Your task to perform on an android device: Go to eBay Image 0: 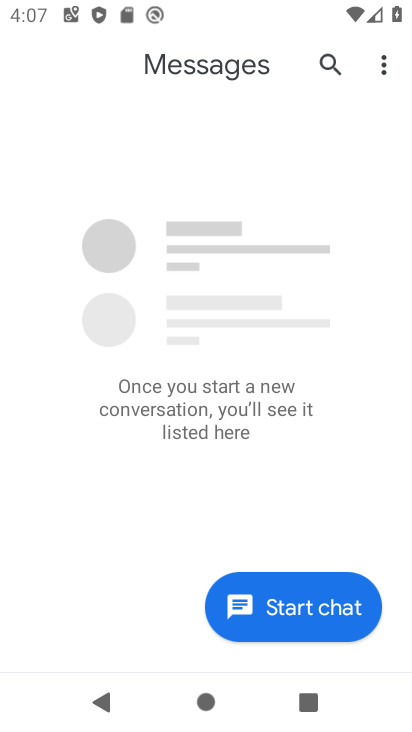
Step 0: press home button
Your task to perform on an android device: Go to eBay Image 1: 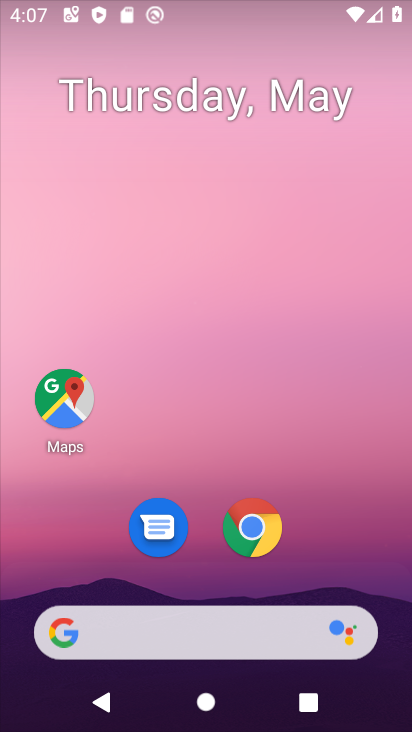
Step 1: drag from (333, 546) to (23, 244)
Your task to perform on an android device: Go to eBay Image 2: 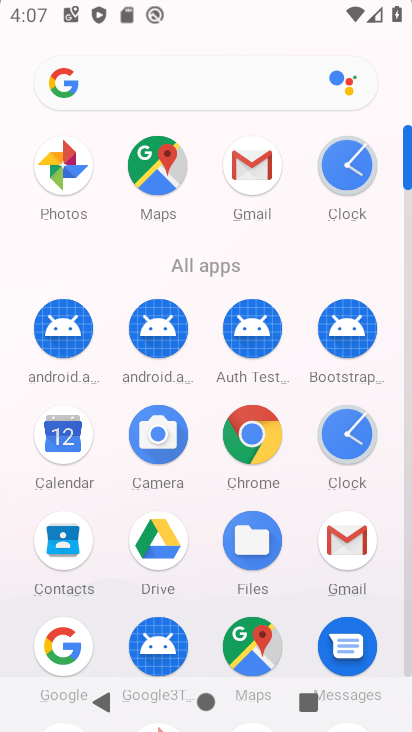
Step 2: click (259, 480)
Your task to perform on an android device: Go to eBay Image 3: 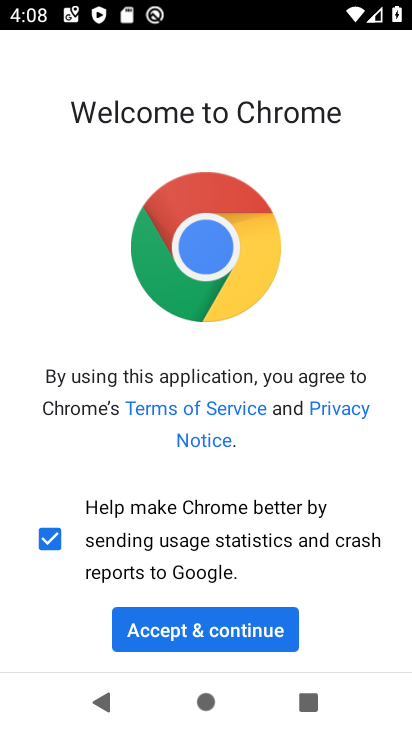
Step 3: click (203, 638)
Your task to perform on an android device: Go to eBay Image 4: 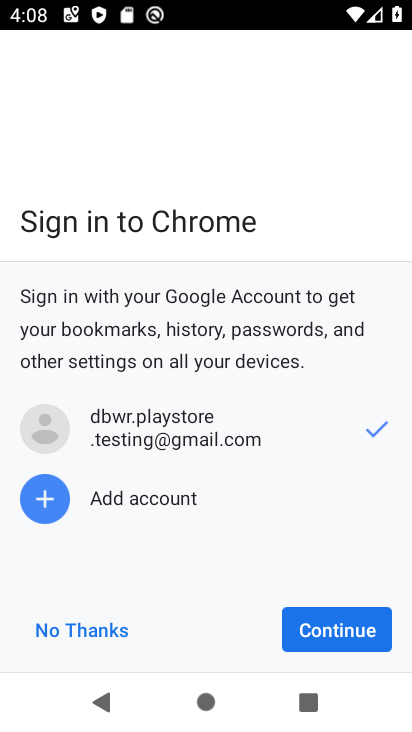
Step 4: click (98, 634)
Your task to perform on an android device: Go to eBay Image 5: 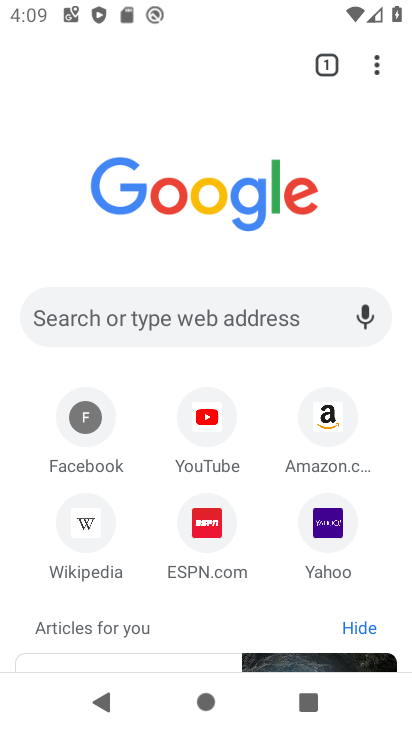
Step 5: drag from (374, 583) to (330, 189)
Your task to perform on an android device: Go to eBay Image 6: 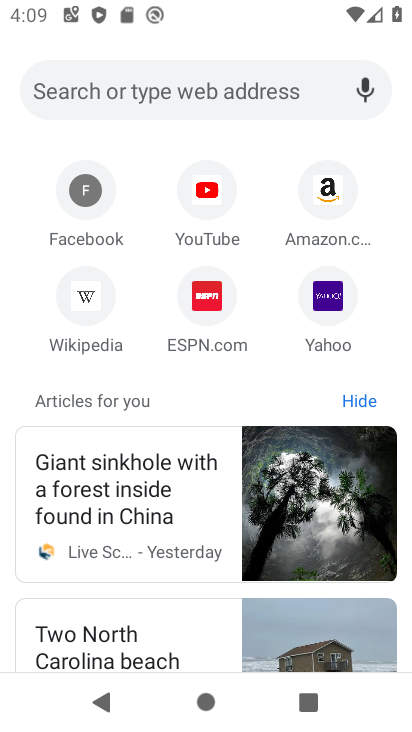
Step 6: drag from (376, 236) to (395, 522)
Your task to perform on an android device: Go to eBay Image 7: 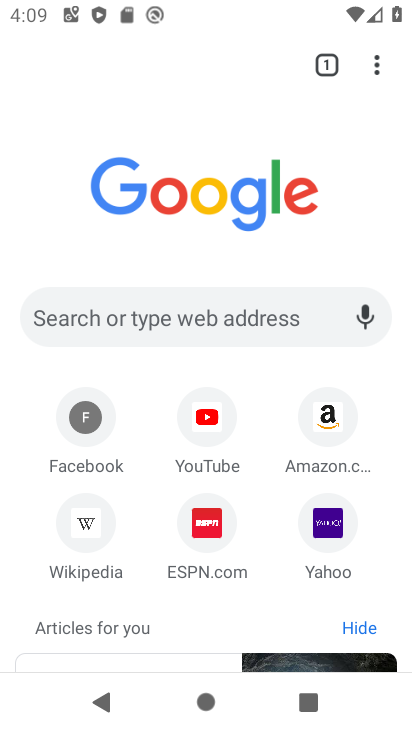
Step 7: click (259, 305)
Your task to perform on an android device: Go to eBay Image 8: 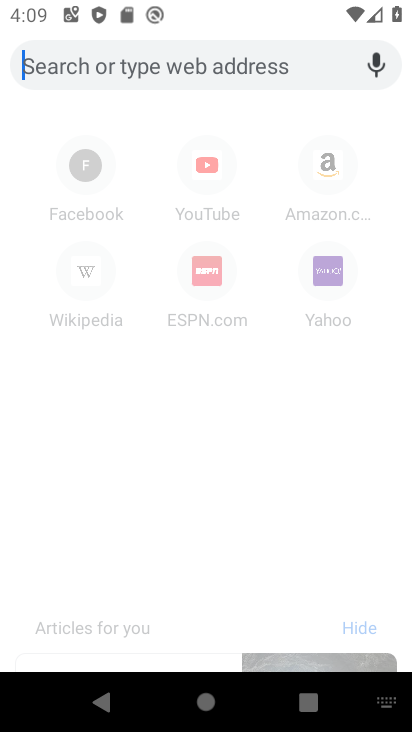
Step 8: type "ebay"
Your task to perform on an android device: Go to eBay Image 9: 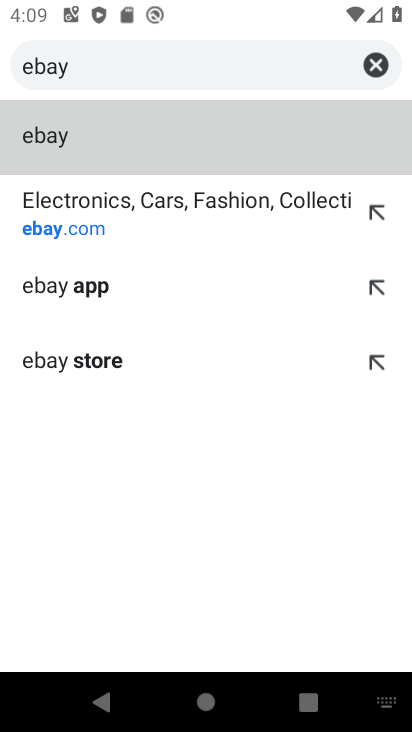
Step 9: click (101, 206)
Your task to perform on an android device: Go to eBay Image 10: 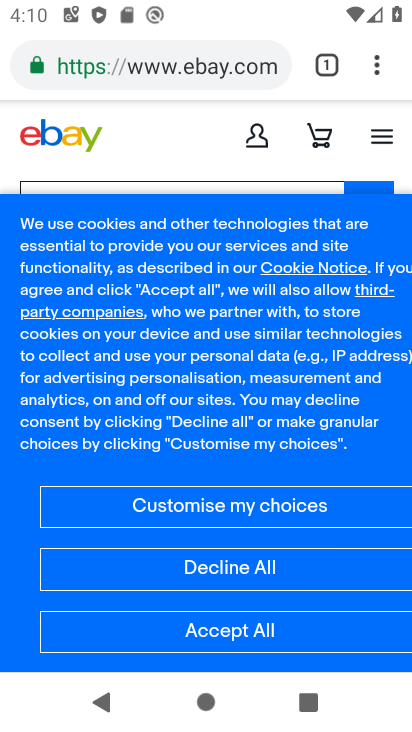
Step 10: task complete